Your task to perform on an android device: Open Youtube and go to "Your channel" Image 0: 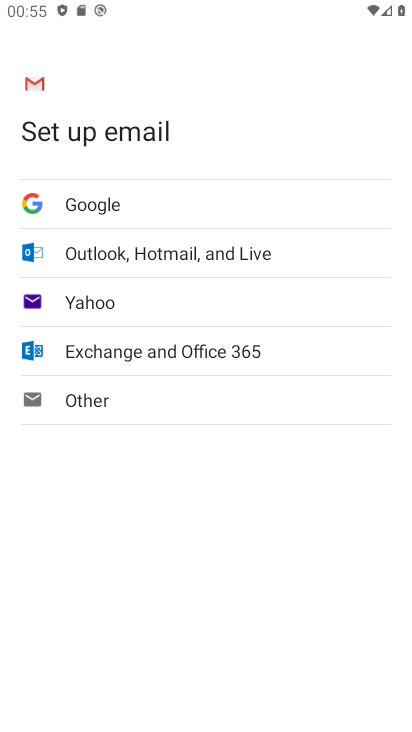
Step 0: press home button
Your task to perform on an android device: Open Youtube and go to "Your channel" Image 1: 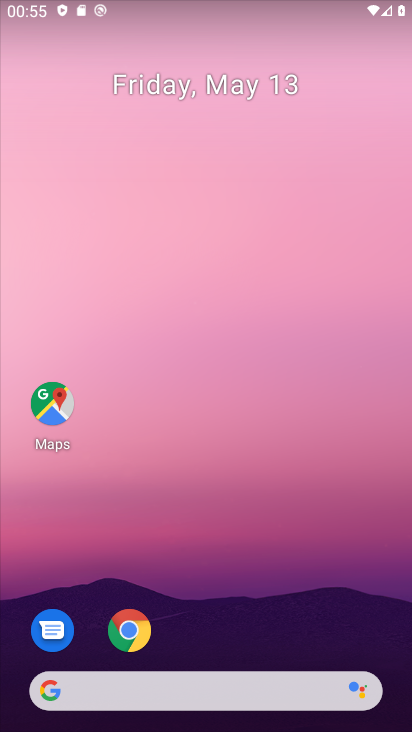
Step 1: drag from (235, 685) to (276, 392)
Your task to perform on an android device: Open Youtube and go to "Your channel" Image 2: 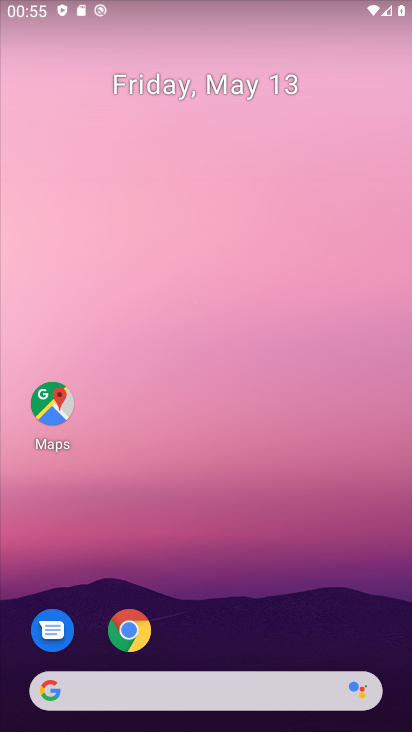
Step 2: drag from (223, 706) to (166, 192)
Your task to perform on an android device: Open Youtube and go to "Your channel" Image 3: 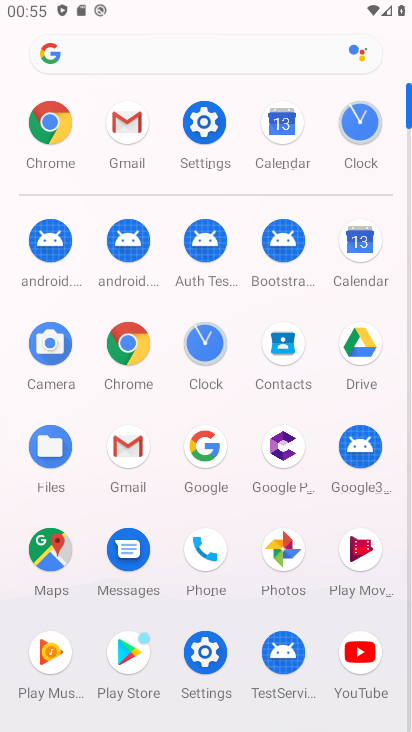
Step 3: click (345, 659)
Your task to perform on an android device: Open Youtube and go to "Your channel" Image 4: 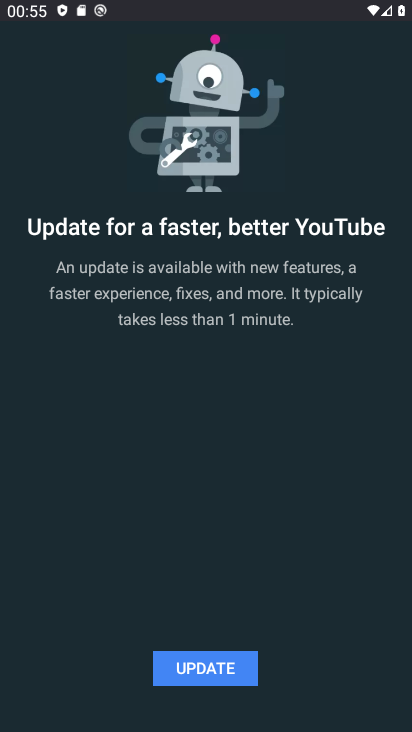
Step 4: click (227, 661)
Your task to perform on an android device: Open Youtube and go to "Your channel" Image 5: 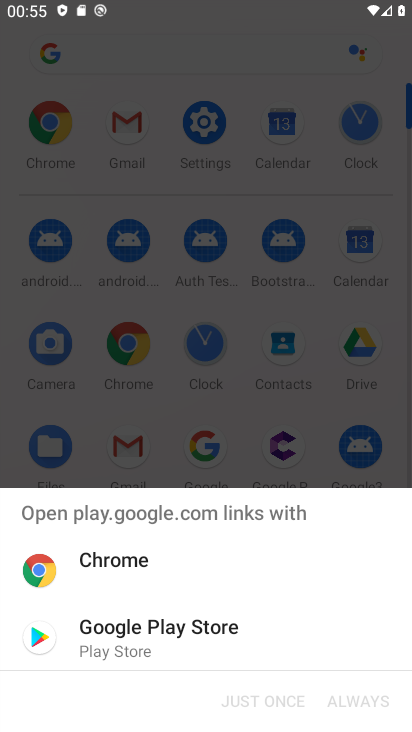
Step 5: click (176, 626)
Your task to perform on an android device: Open Youtube and go to "Your channel" Image 6: 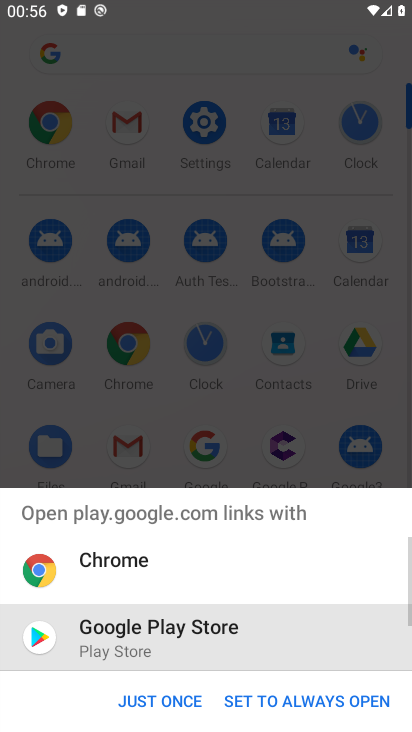
Step 6: click (175, 700)
Your task to perform on an android device: Open Youtube and go to "Your channel" Image 7: 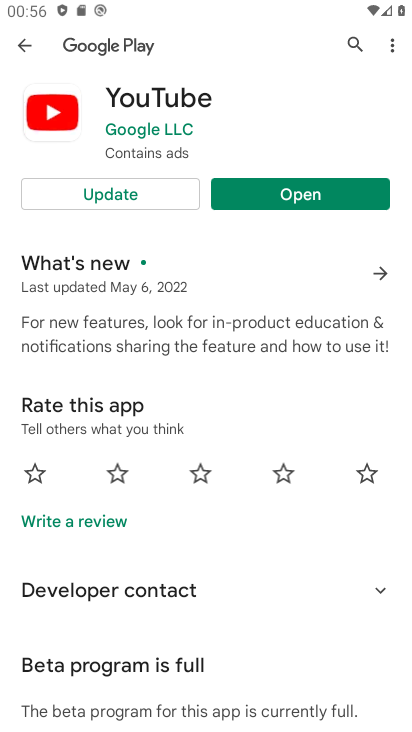
Step 7: click (106, 190)
Your task to perform on an android device: Open Youtube and go to "Your channel" Image 8: 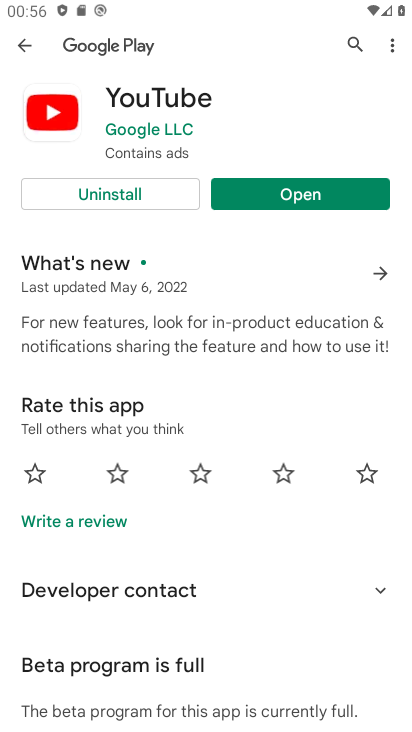
Step 8: click (270, 188)
Your task to perform on an android device: Open Youtube and go to "Your channel" Image 9: 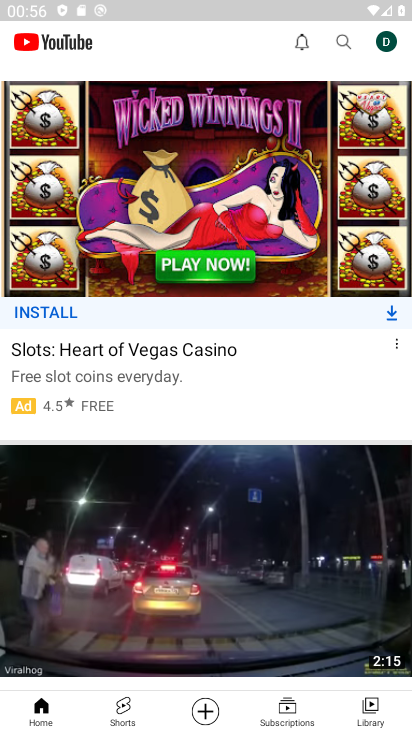
Step 9: click (378, 45)
Your task to perform on an android device: Open Youtube and go to "Your channel" Image 10: 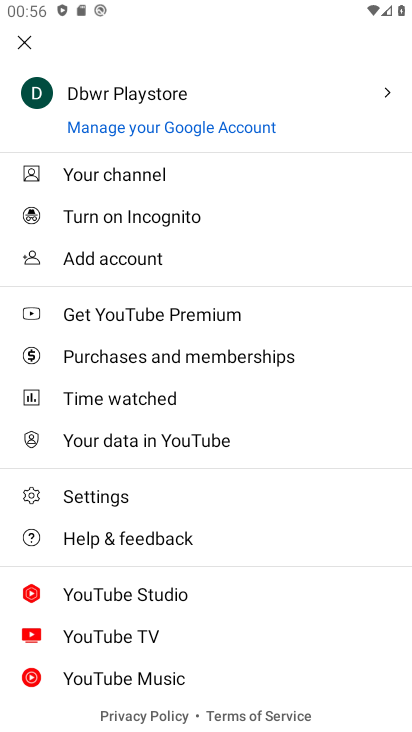
Step 10: click (115, 177)
Your task to perform on an android device: Open Youtube and go to "Your channel" Image 11: 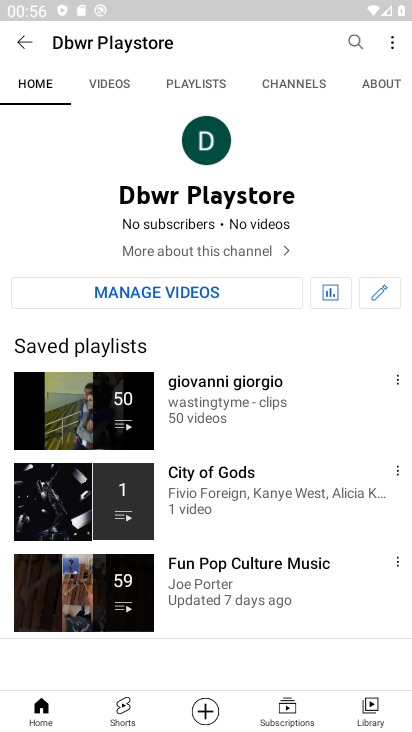
Step 11: task complete